Your task to perform on an android device: Open Google Maps and go to "Timeline" Image 0: 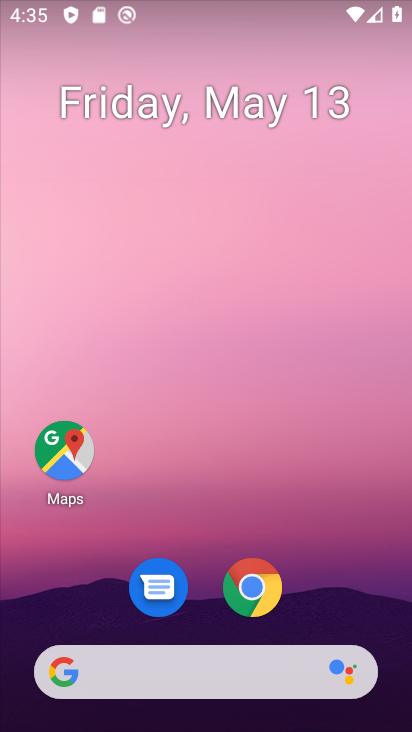
Step 0: drag from (323, 577) to (291, 166)
Your task to perform on an android device: Open Google Maps and go to "Timeline" Image 1: 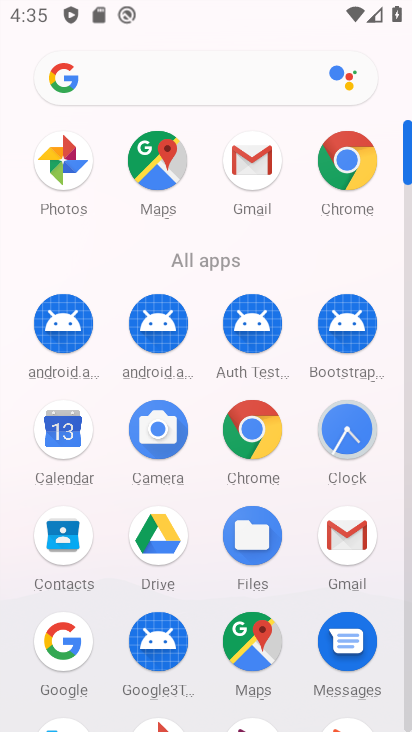
Step 1: click (153, 156)
Your task to perform on an android device: Open Google Maps and go to "Timeline" Image 2: 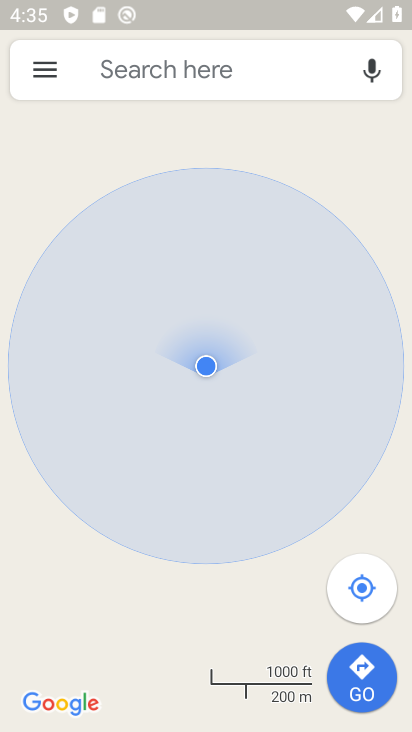
Step 2: click (39, 62)
Your task to perform on an android device: Open Google Maps and go to "Timeline" Image 3: 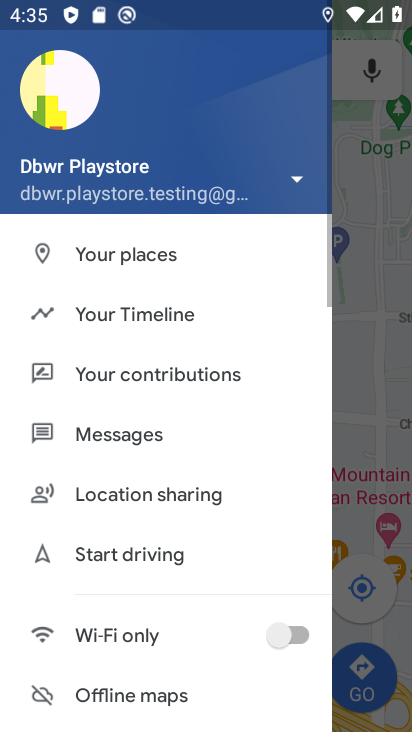
Step 3: click (138, 311)
Your task to perform on an android device: Open Google Maps and go to "Timeline" Image 4: 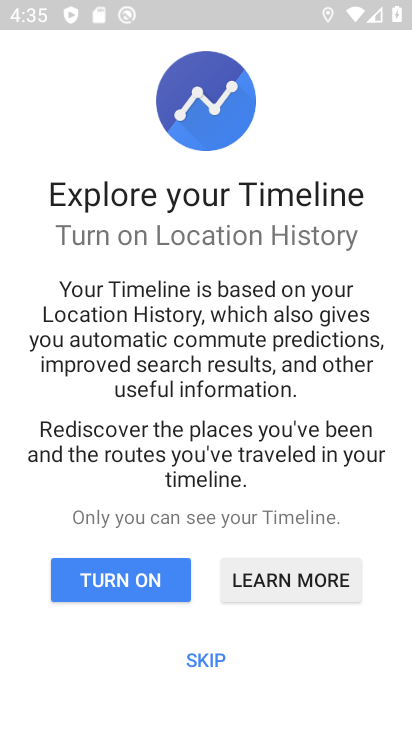
Step 4: click (104, 567)
Your task to perform on an android device: Open Google Maps and go to "Timeline" Image 5: 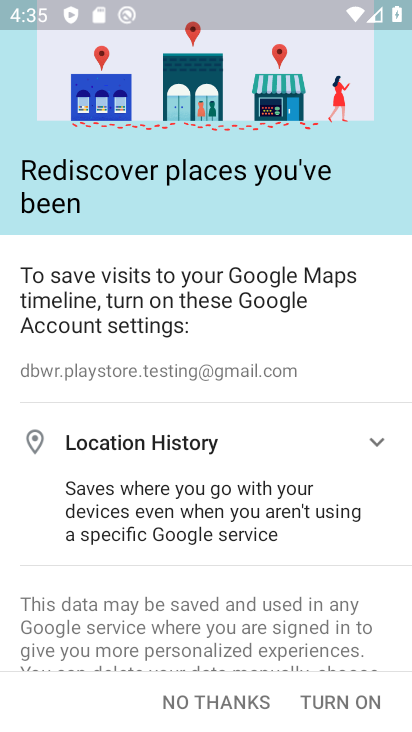
Step 5: click (237, 695)
Your task to perform on an android device: Open Google Maps and go to "Timeline" Image 6: 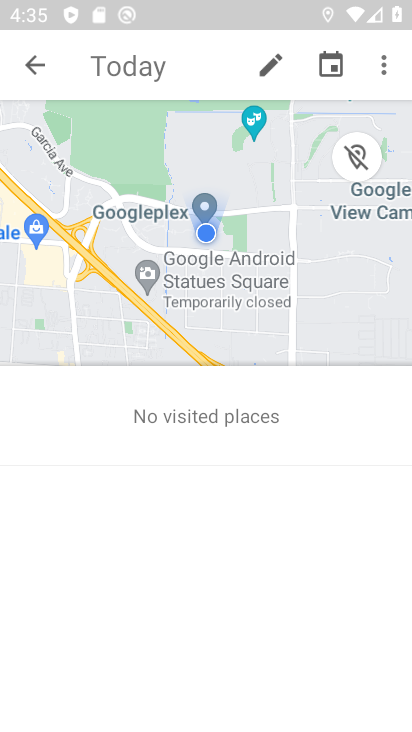
Step 6: task complete